Your task to perform on an android device: Open Amazon Image 0: 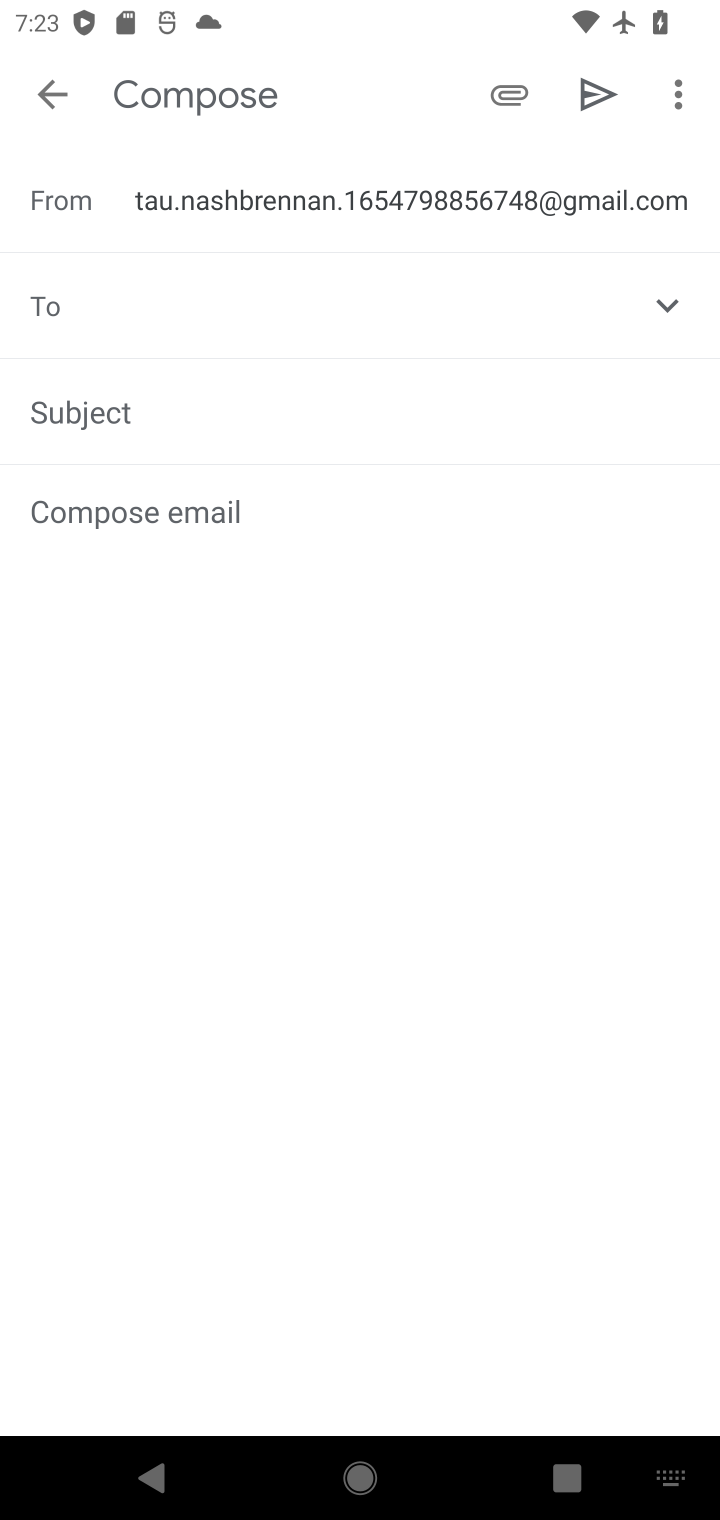
Step 0: press home button
Your task to perform on an android device: Open Amazon Image 1: 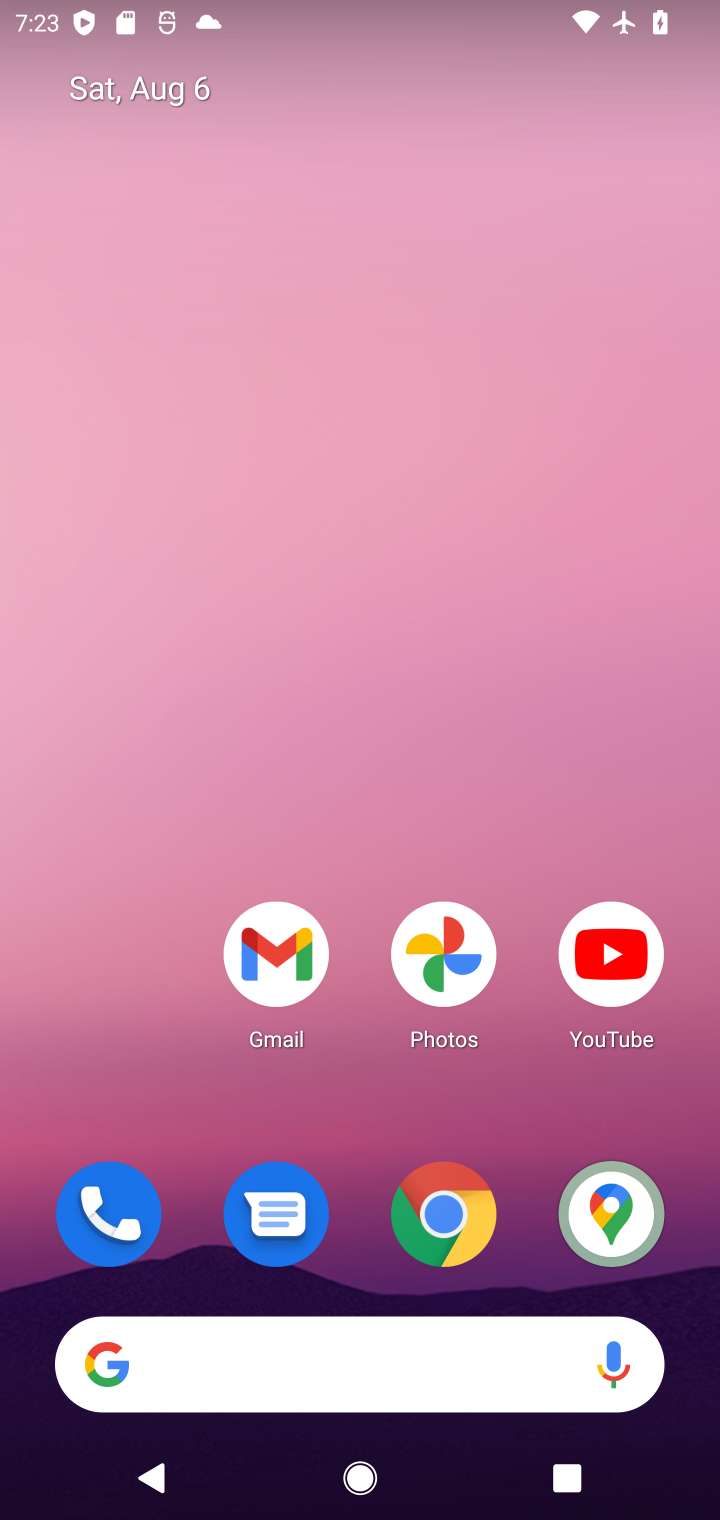
Step 1: click (433, 1201)
Your task to perform on an android device: Open Amazon Image 2: 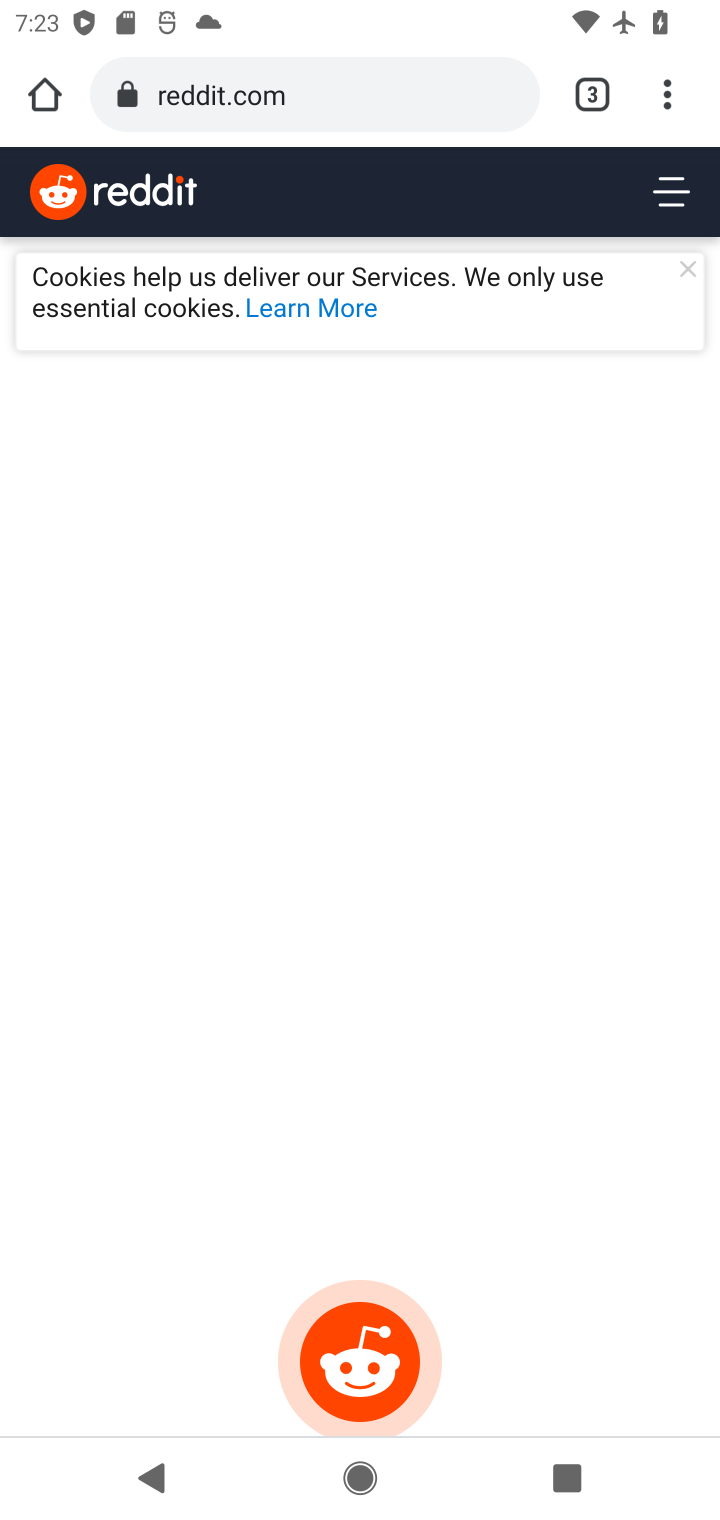
Step 2: click (340, 91)
Your task to perform on an android device: Open Amazon Image 3: 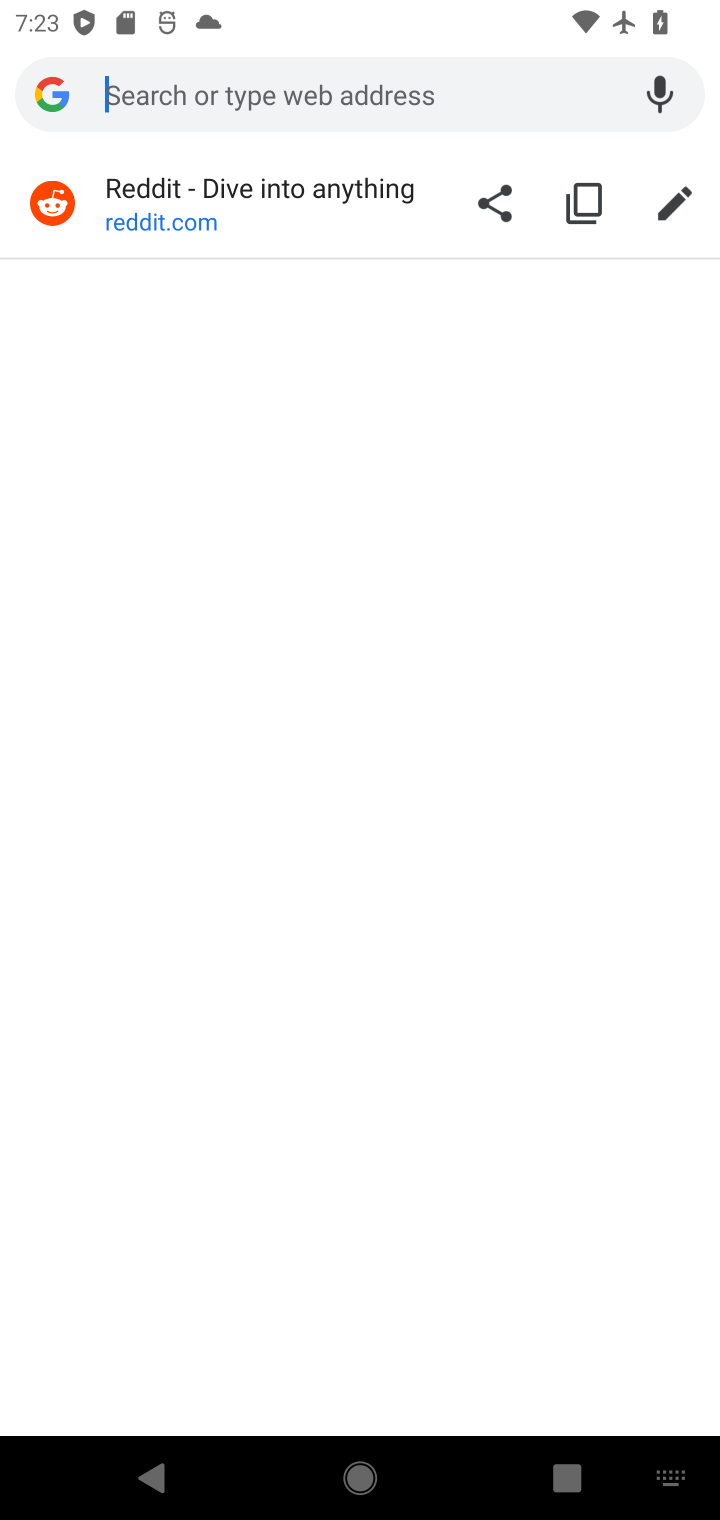
Step 3: type "Amazon"
Your task to perform on an android device: Open Amazon Image 4: 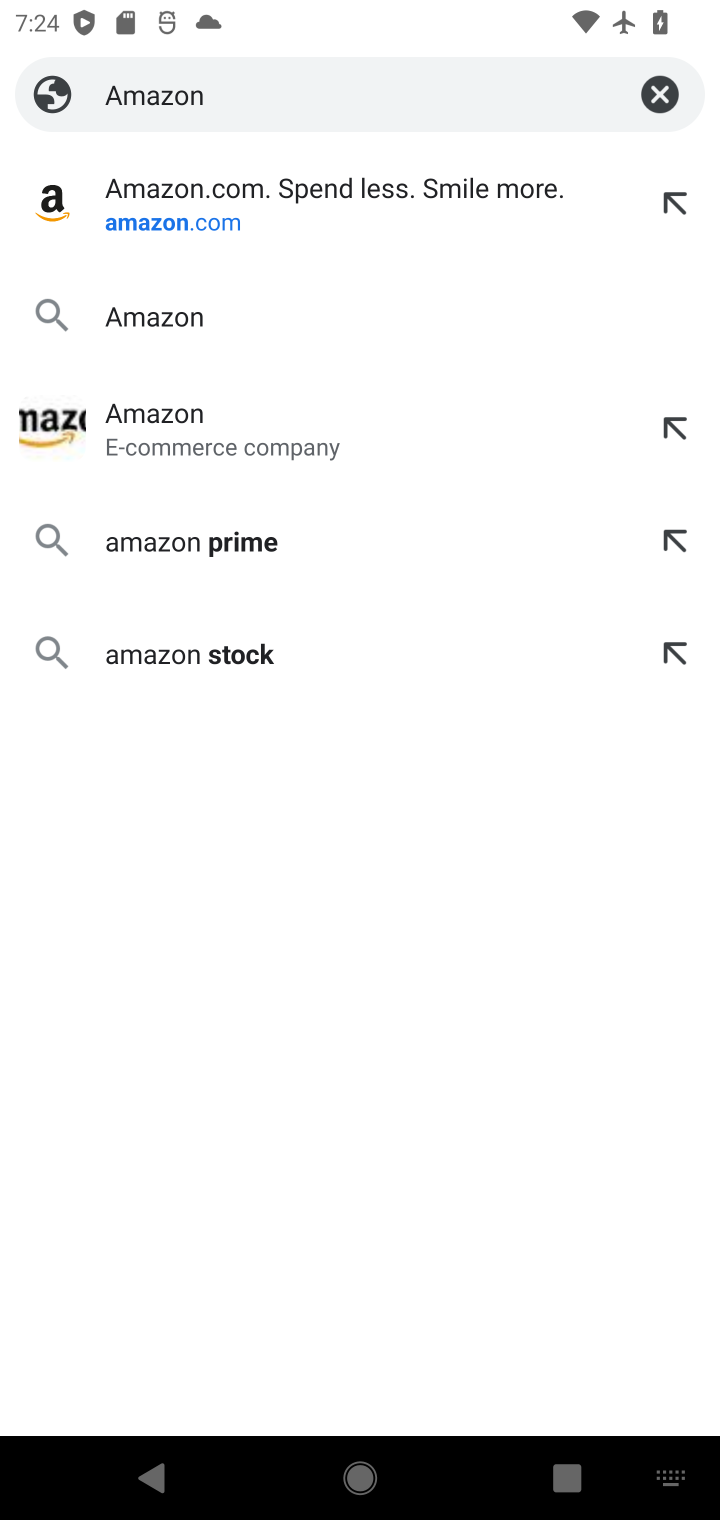
Step 4: click (327, 199)
Your task to perform on an android device: Open Amazon Image 5: 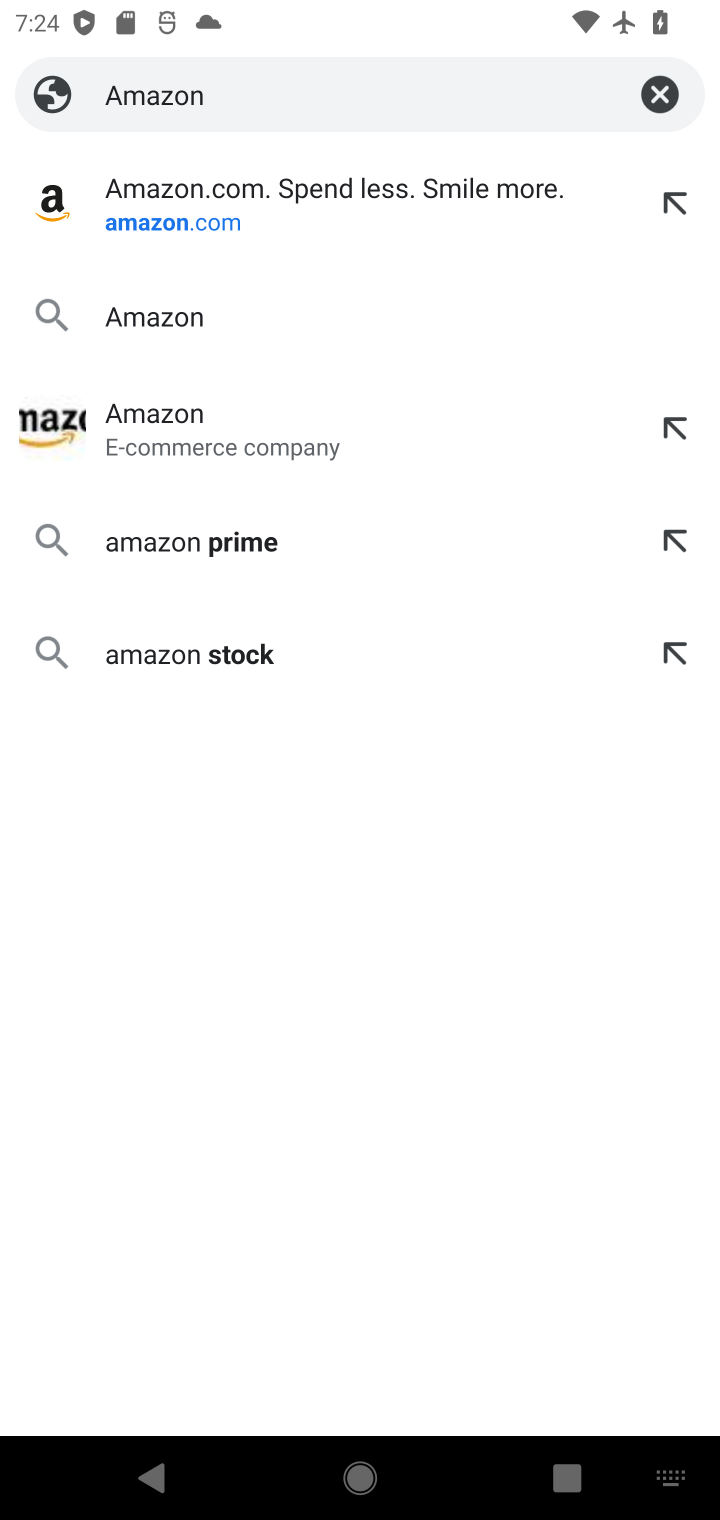
Step 5: click (268, 215)
Your task to perform on an android device: Open Amazon Image 6: 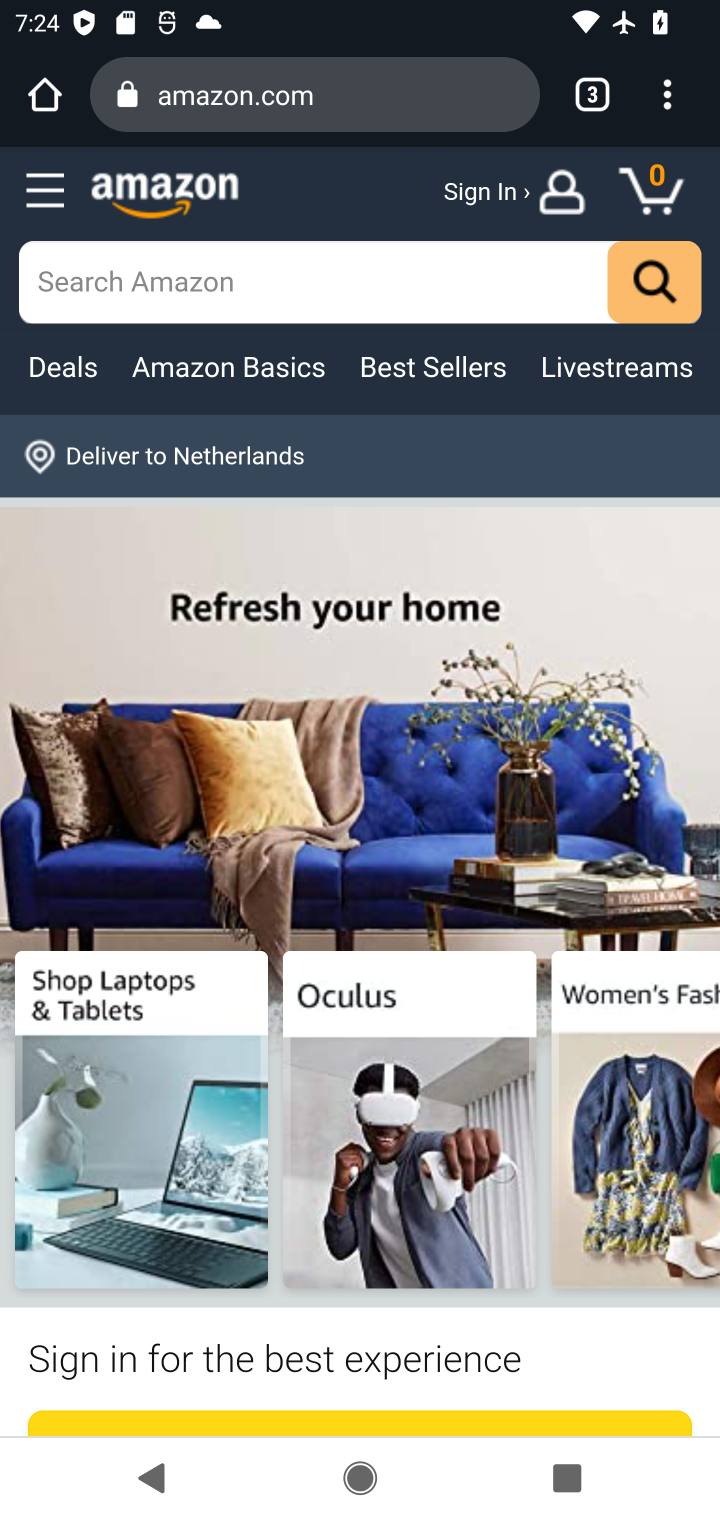
Step 6: task complete